Your task to perform on an android device: set the timer Image 0: 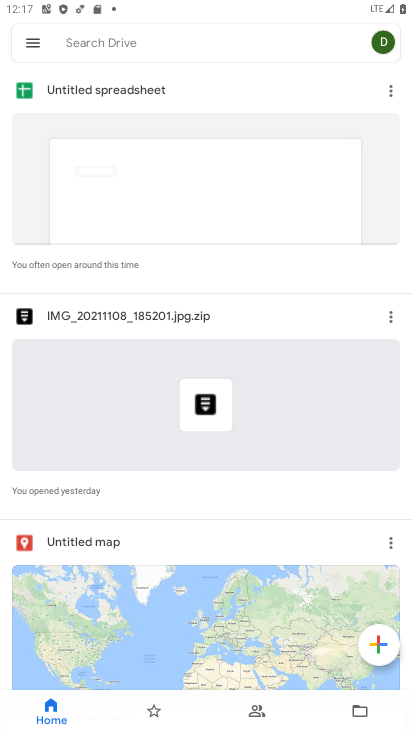
Step 0: press home button
Your task to perform on an android device: set the timer Image 1: 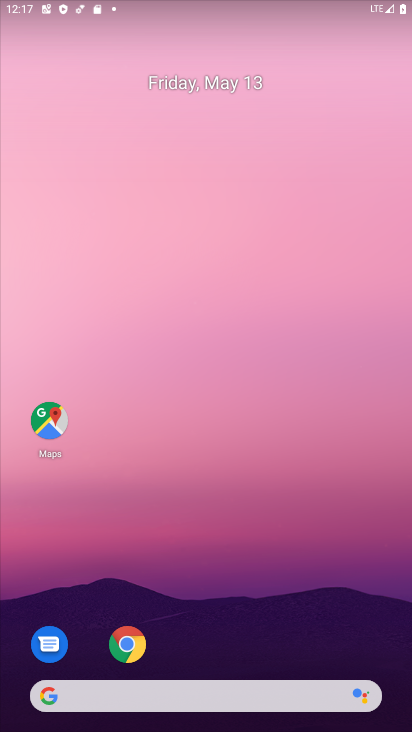
Step 1: drag from (355, 609) to (208, 43)
Your task to perform on an android device: set the timer Image 2: 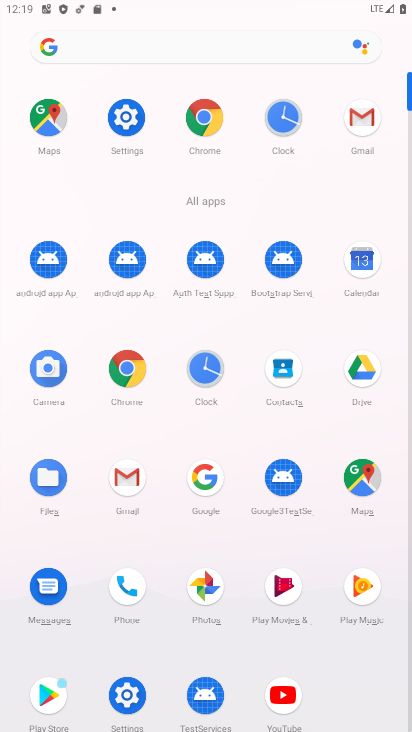
Step 2: click (282, 119)
Your task to perform on an android device: set the timer Image 3: 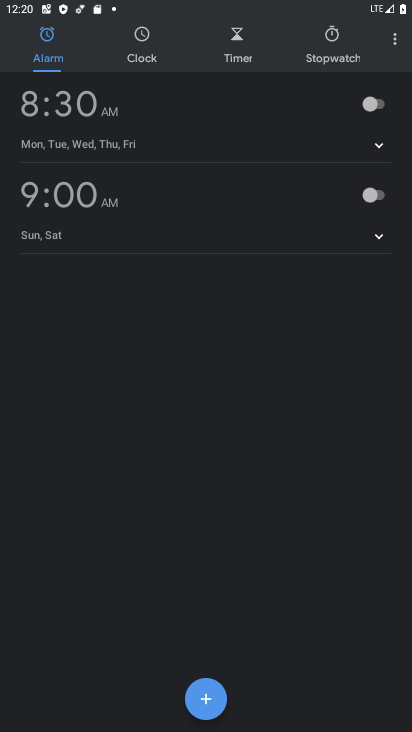
Step 3: click (392, 43)
Your task to perform on an android device: set the timer Image 4: 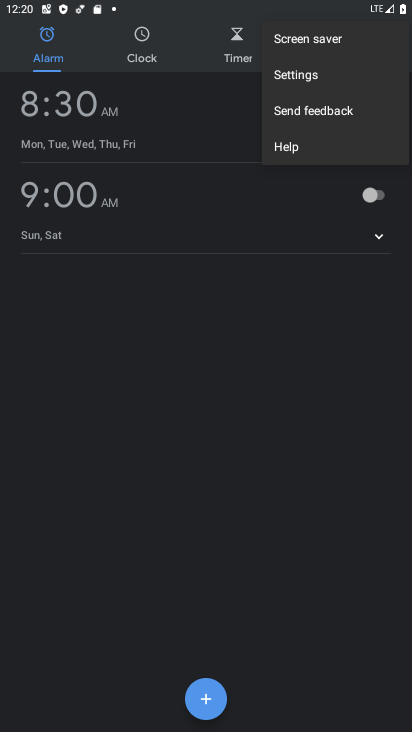
Step 4: click (353, 78)
Your task to perform on an android device: set the timer Image 5: 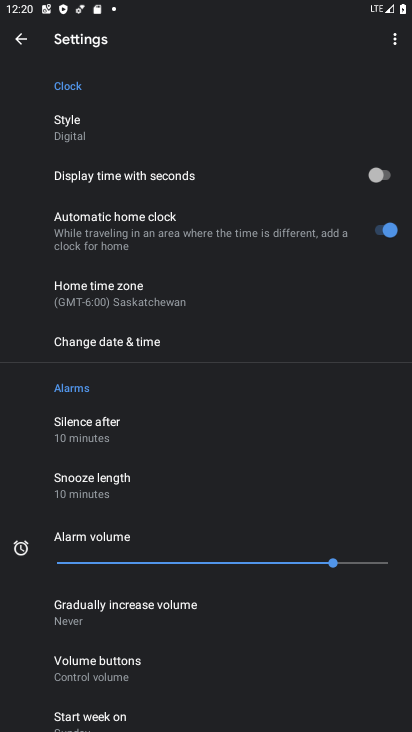
Step 5: click (205, 314)
Your task to perform on an android device: set the timer Image 6: 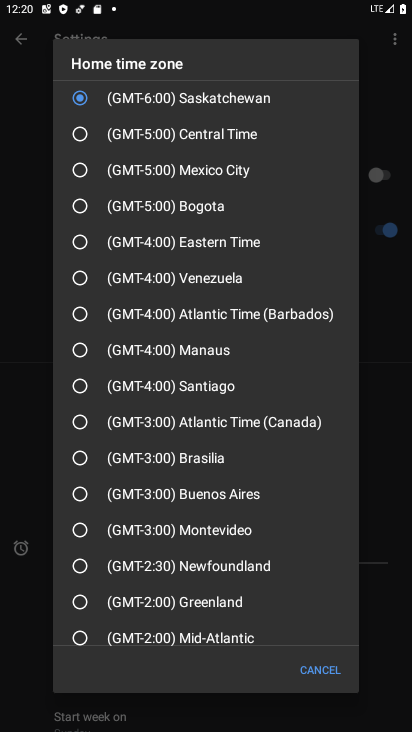
Step 6: click (220, 277)
Your task to perform on an android device: set the timer Image 7: 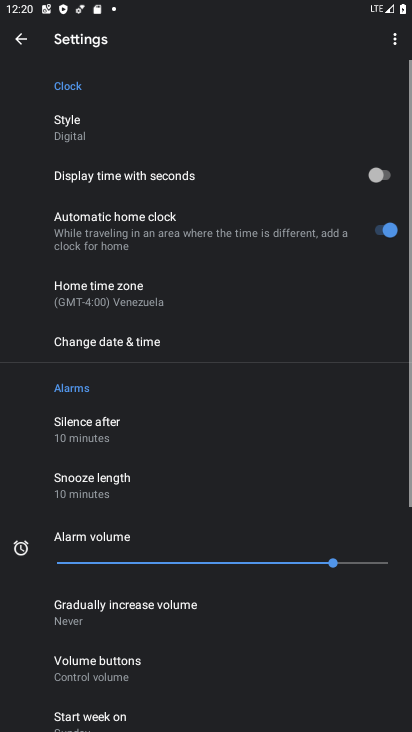
Step 7: task complete